Your task to perform on an android device: Search for sushi restaurants on Maps Image 0: 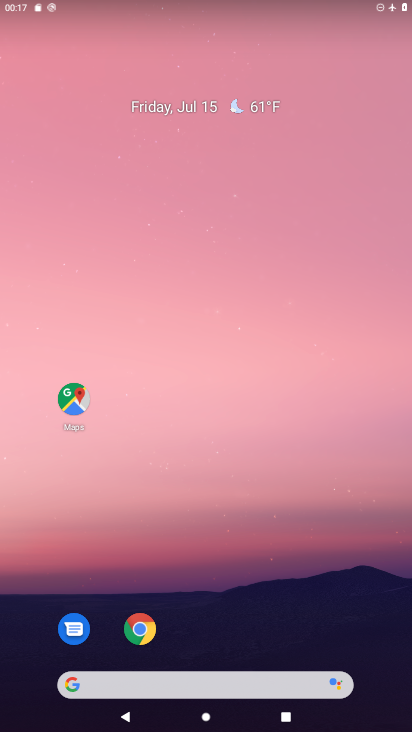
Step 0: click (62, 394)
Your task to perform on an android device: Search for sushi restaurants on Maps Image 1: 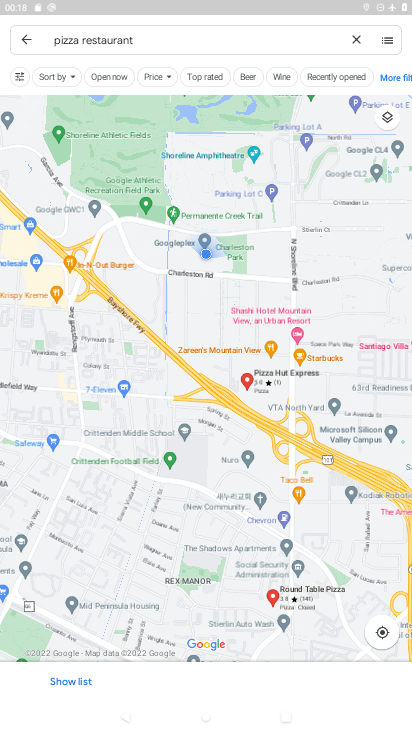
Step 1: click (358, 40)
Your task to perform on an android device: Search for sushi restaurants on Maps Image 2: 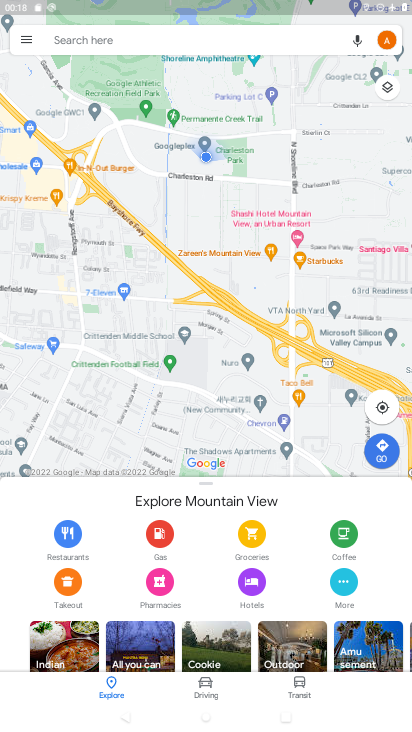
Step 2: click (190, 44)
Your task to perform on an android device: Search for sushi restaurants on Maps Image 3: 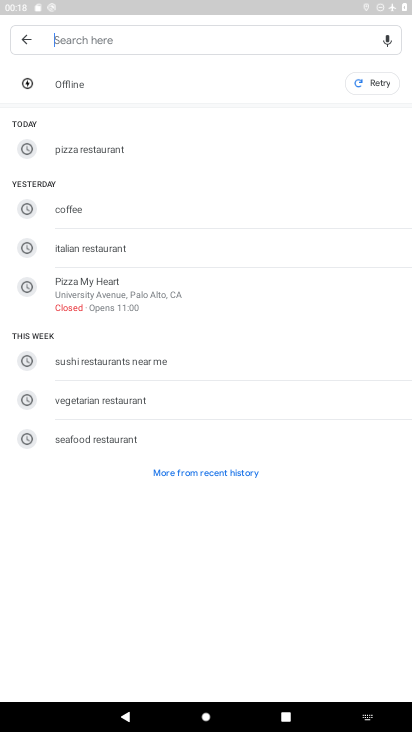
Step 3: type "sjushi restaurant"
Your task to perform on an android device: Search for sushi restaurants on Maps Image 4: 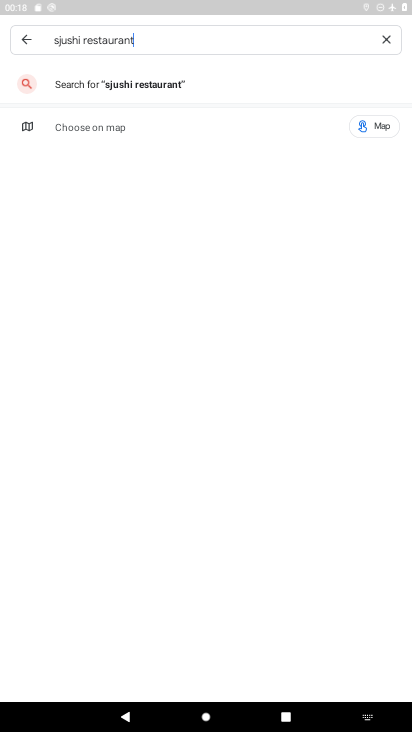
Step 4: click (138, 88)
Your task to perform on an android device: Search for sushi restaurants on Maps Image 5: 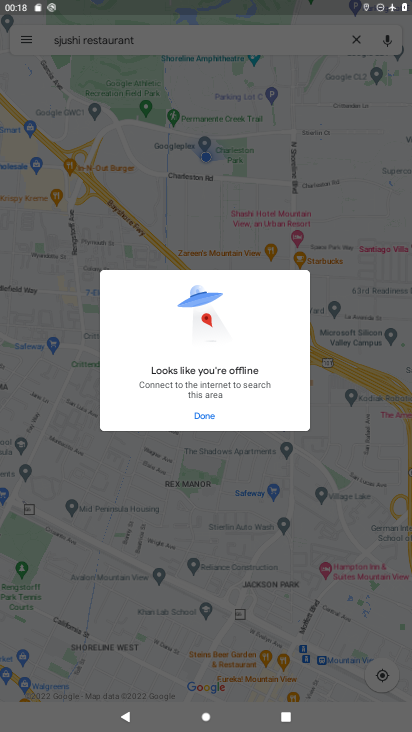
Step 5: drag from (275, 10) to (269, 654)
Your task to perform on an android device: Search for sushi restaurants on Maps Image 6: 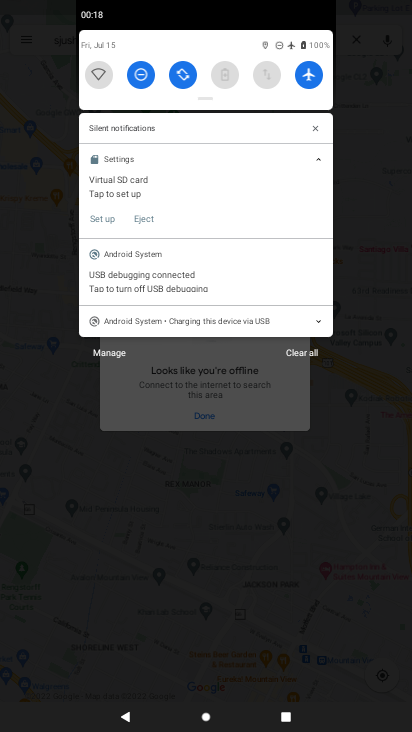
Step 6: click (301, 78)
Your task to perform on an android device: Search for sushi restaurants on Maps Image 7: 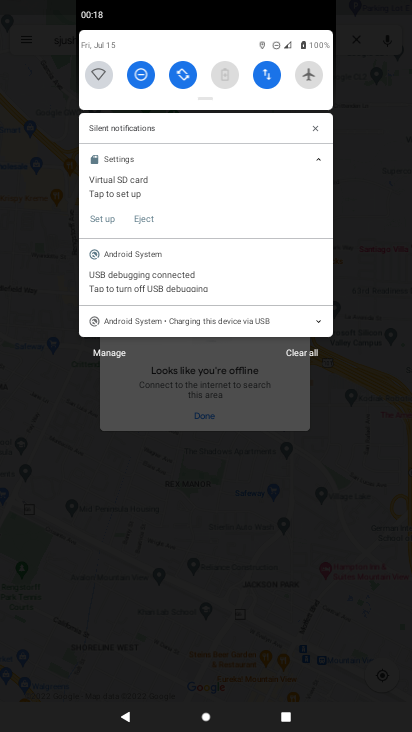
Step 7: task complete